Your task to perform on an android device: turn on the 12-hour format for clock Image 0: 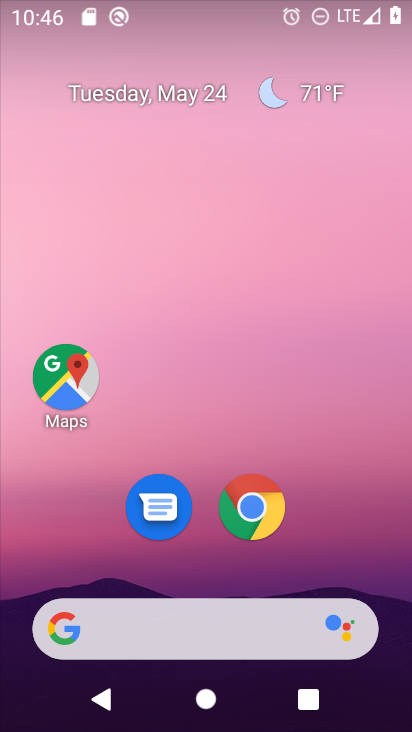
Step 0: drag from (229, 723) to (230, 133)
Your task to perform on an android device: turn on the 12-hour format for clock Image 1: 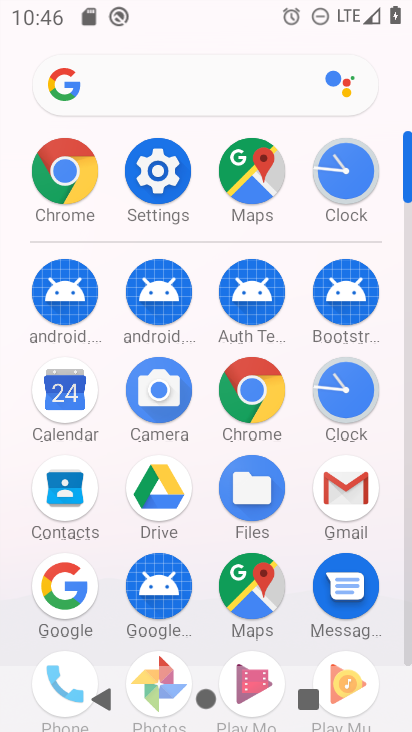
Step 1: click (344, 394)
Your task to perform on an android device: turn on the 12-hour format for clock Image 2: 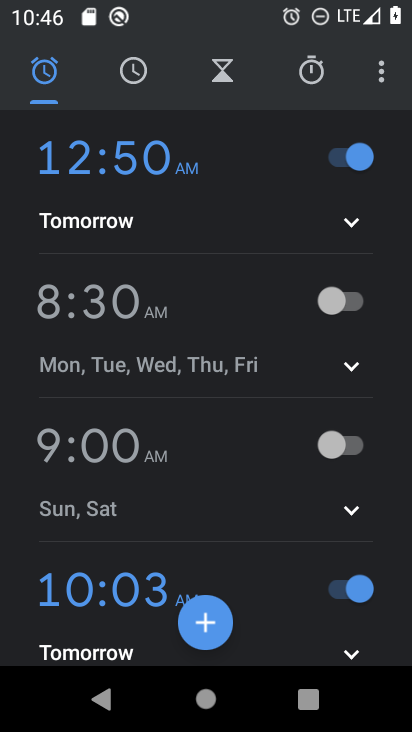
Step 2: click (383, 83)
Your task to perform on an android device: turn on the 12-hour format for clock Image 3: 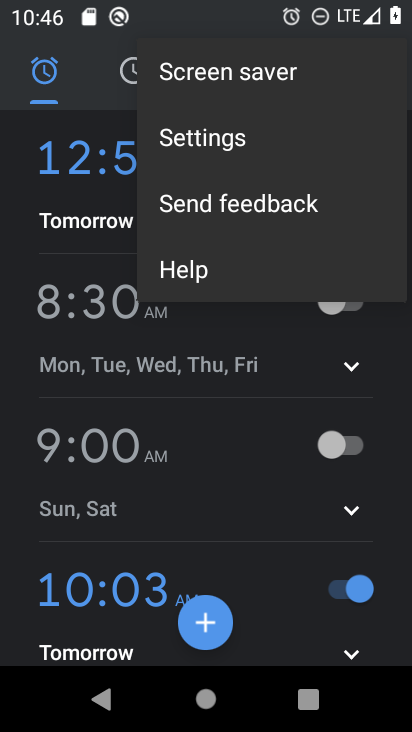
Step 3: click (220, 141)
Your task to perform on an android device: turn on the 12-hour format for clock Image 4: 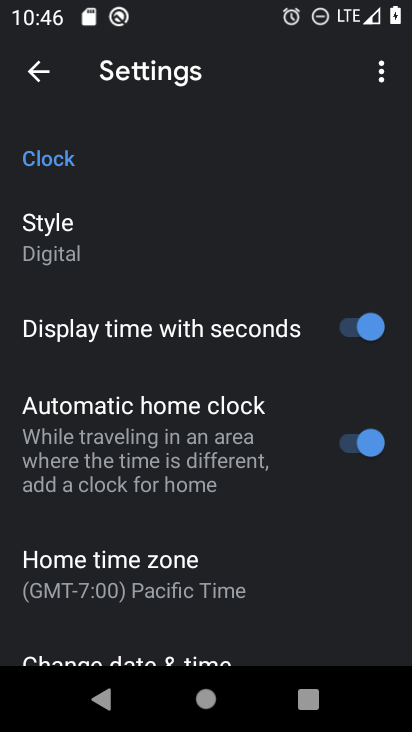
Step 4: drag from (123, 643) to (139, 279)
Your task to perform on an android device: turn on the 12-hour format for clock Image 5: 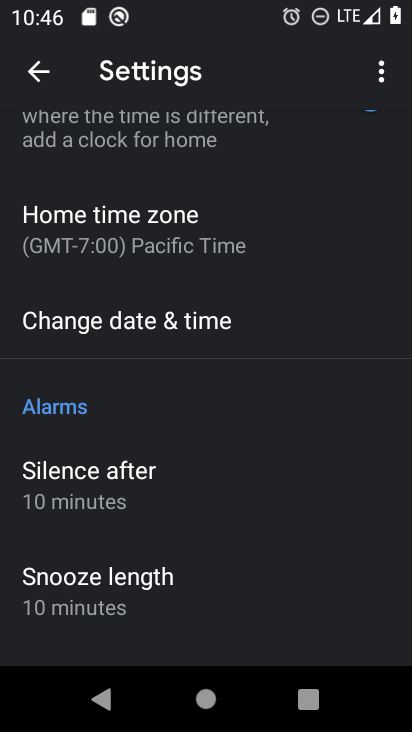
Step 5: click (148, 322)
Your task to perform on an android device: turn on the 12-hour format for clock Image 6: 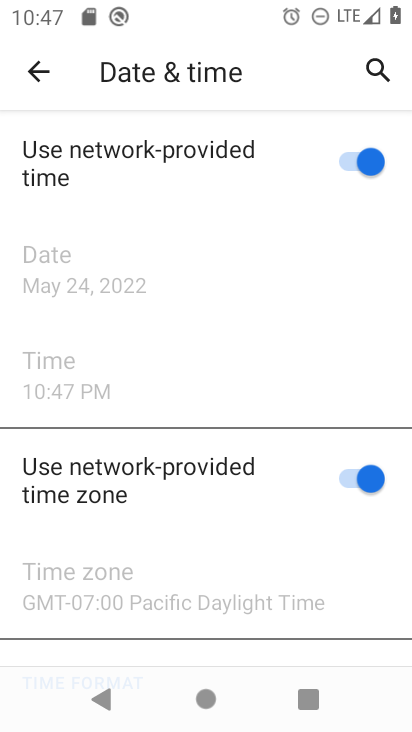
Step 6: task complete